Your task to perform on an android device: turn off data saver in the chrome app Image 0: 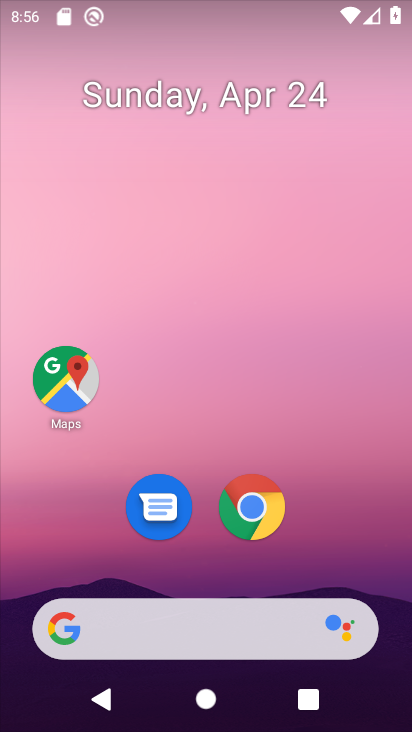
Step 0: drag from (342, 462) to (339, 67)
Your task to perform on an android device: turn off data saver in the chrome app Image 1: 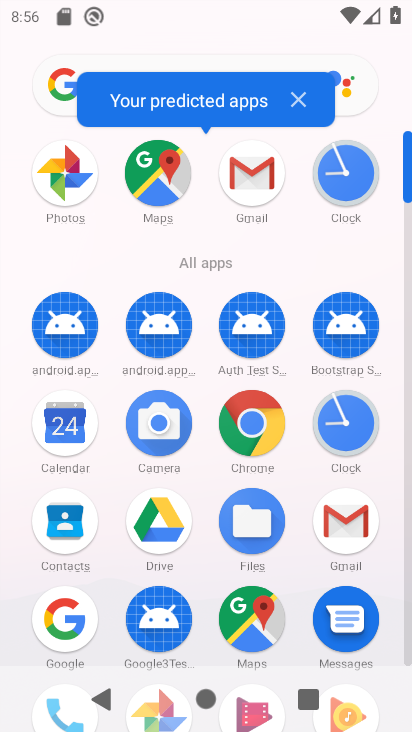
Step 1: click (253, 420)
Your task to perform on an android device: turn off data saver in the chrome app Image 2: 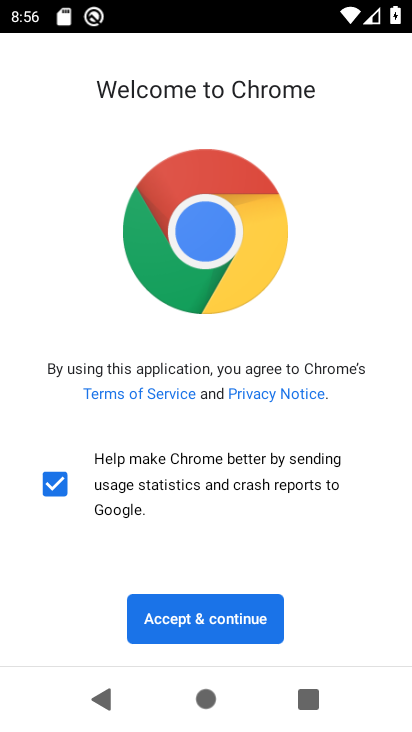
Step 2: click (222, 626)
Your task to perform on an android device: turn off data saver in the chrome app Image 3: 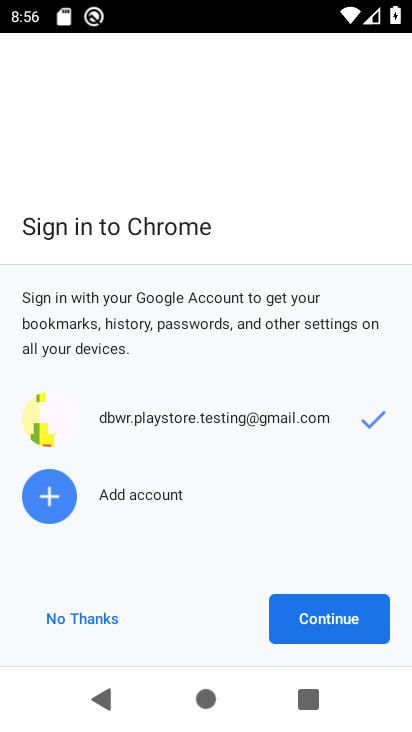
Step 3: click (80, 622)
Your task to perform on an android device: turn off data saver in the chrome app Image 4: 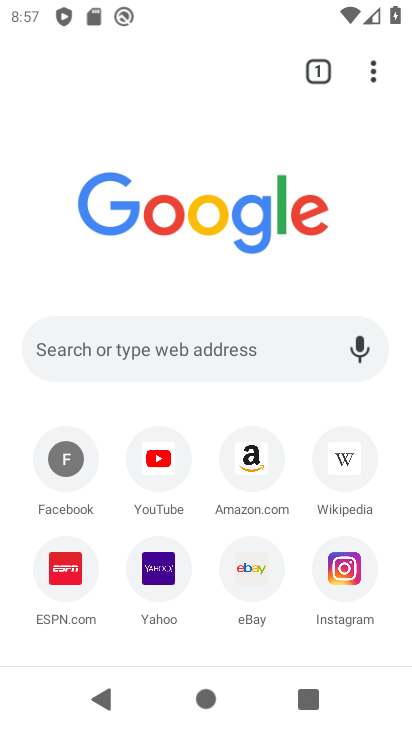
Step 4: drag from (371, 76) to (191, 503)
Your task to perform on an android device: turn off data saver in the chrome app Image 5: 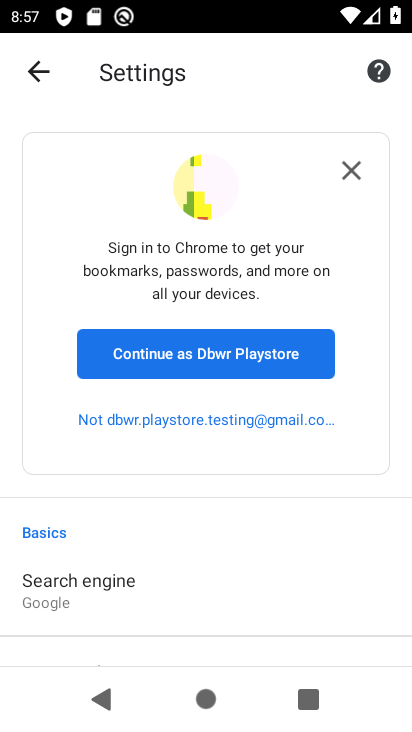
Step 5: drag from (230, 602) to (307, 155)
Your task to perform on an android device: turn off data saver in the chrome app Image 6: 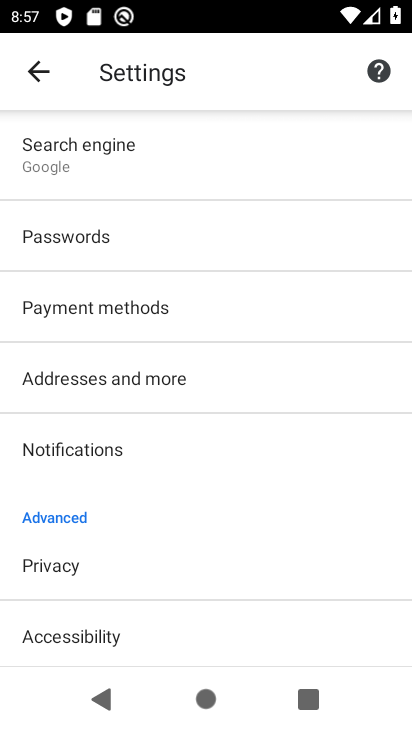
Step 6: drag from (204, 537) to (302, 119)
Your task to perform on an android device: turn off data saver in the chrome app Image 7: 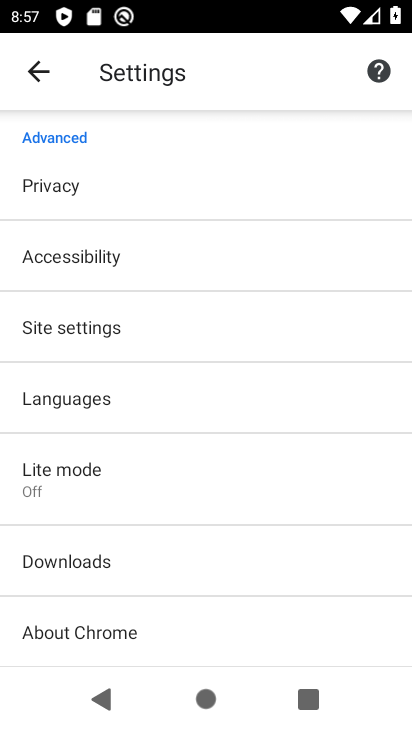
Step 7: drag from (242, 536) to (268, 269)
Your task to perform on an android device: turn off data saver in the chrome app Image 8: 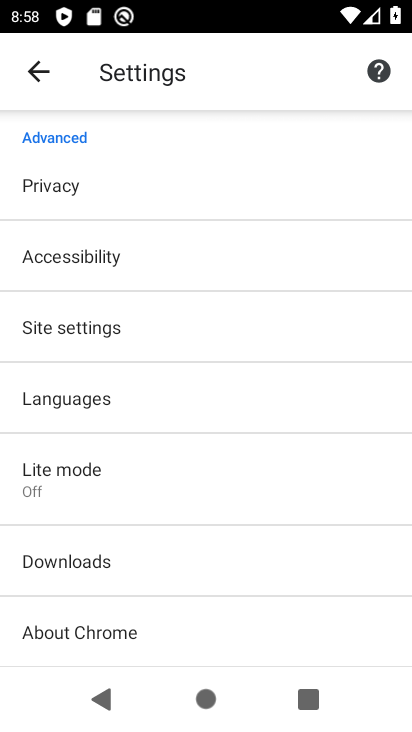
Step 8: click (78, 474)
Your task to perform on an android device: turn off data saver in the chrome app Image 9: 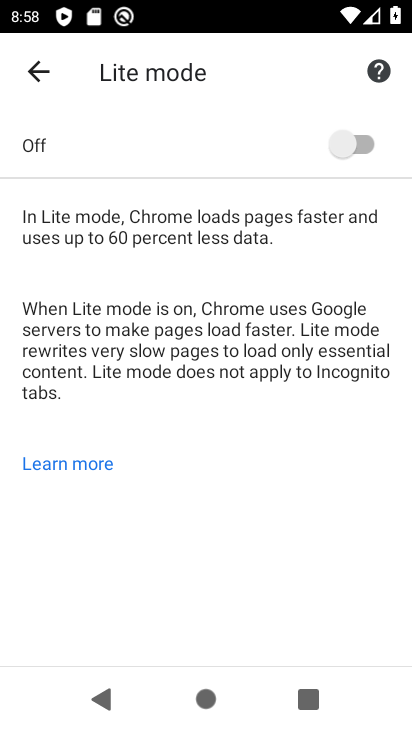
Step 9: task complete